Your task to perform on an android device: Show me the alarms in the clock app Image 0: 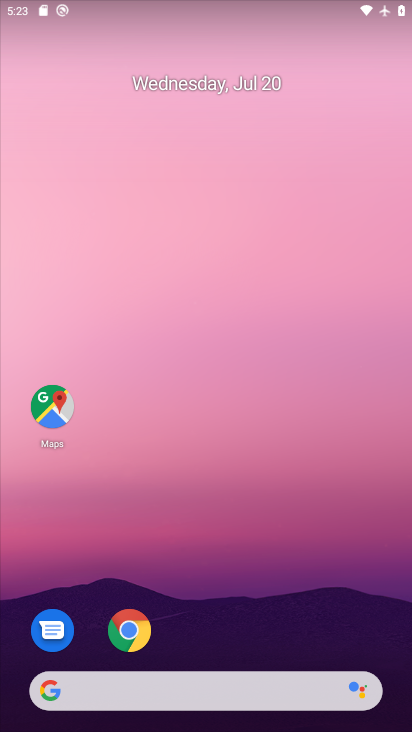
Step 0: press home button
Your task to perform on an android device: Show me the alarms in the clock app Image 1: 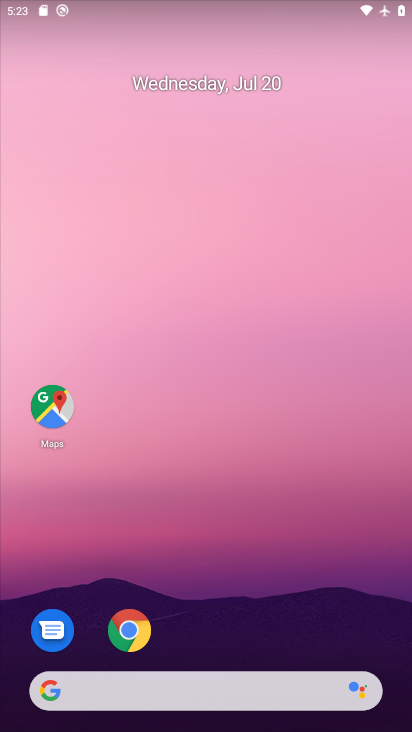
Step 1: drag from (268, 579) to (287, 24)
Your task to perform on an android device: Show me the alarms in the clock app Image 2: 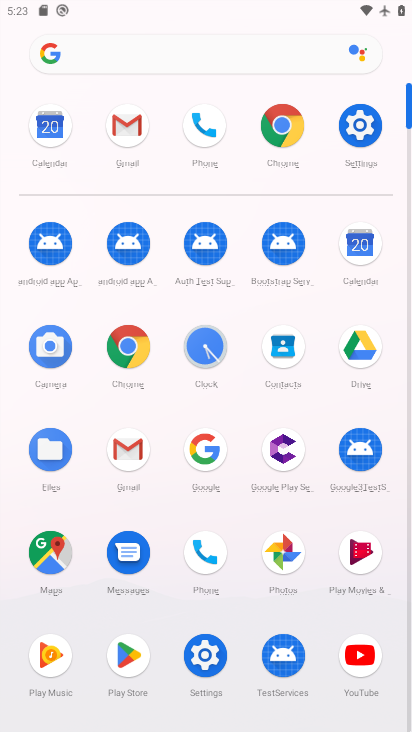
Step 2: click (216, 350)
Your task to perform on an android device: Show me the alarms in the clock app Image 3: 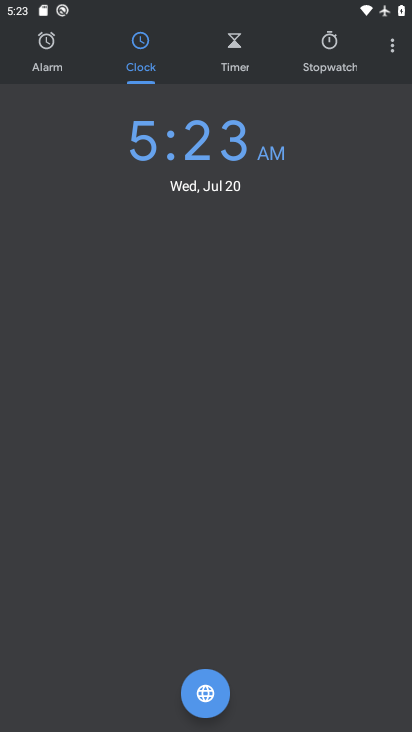
Step 3: click (48, 52)
Your task to perform on an android device: Show me the alarms in the clock app Image 4: 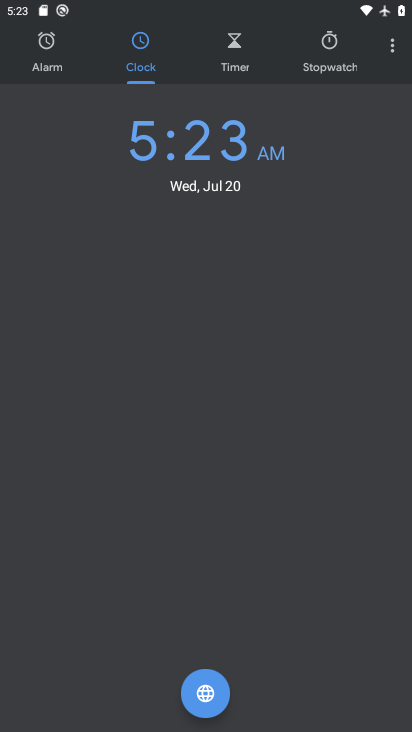
Step 4: task complete